Your task to perform on an android device: Open the phone app and click the voicemail tab. Image 0: 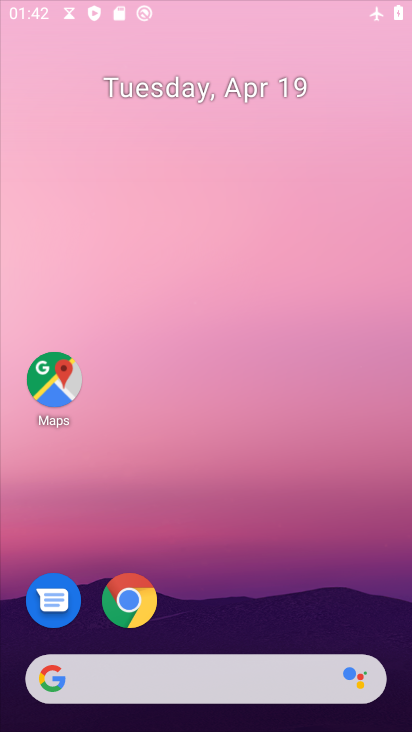
Step 0: drag from (209, 554) to (149, 41)
Your task to perform on an android device: Open the phone app and click the voicemail tab. Image 1: 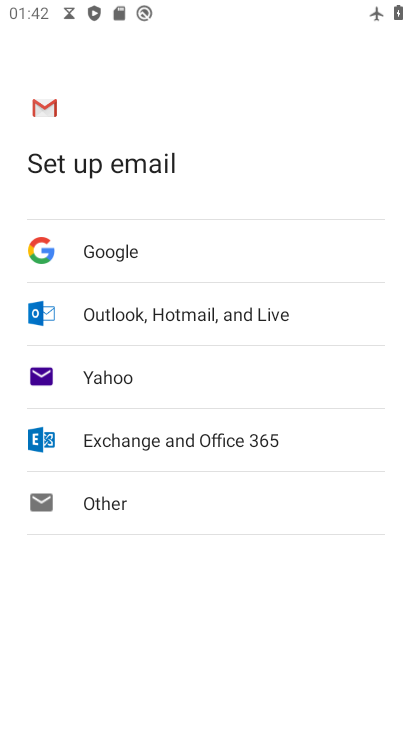
Step 1: press home button
Your task to perform on an android device: Open the phone app and click the voicemail tab. Image 2: 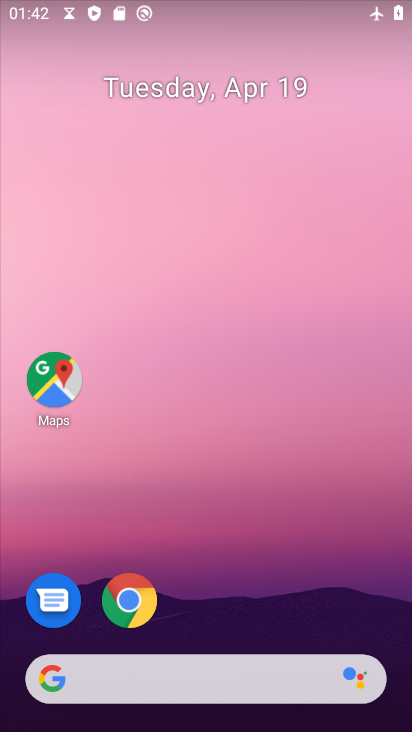
Step 2: drag from (189, 366) to (140, 68)
Your task to perform on an android device: Open the phone app and click the voicemail tab. Image 3: 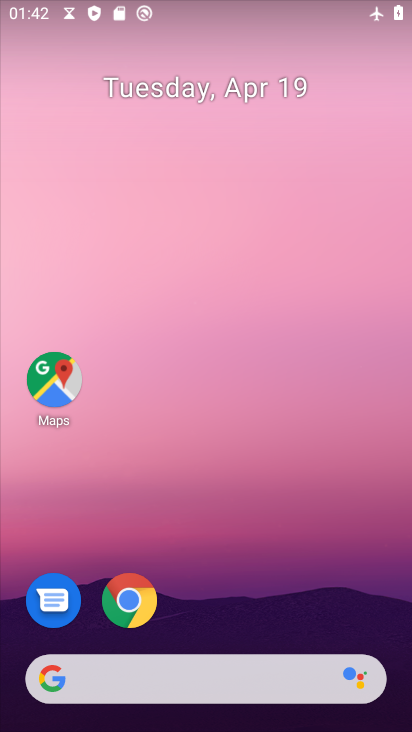
Step 3: drag from (200, 627) to (184, 20)
Your task to perform on an android device: Open the phone app and click the voicemail tab. Image 4: 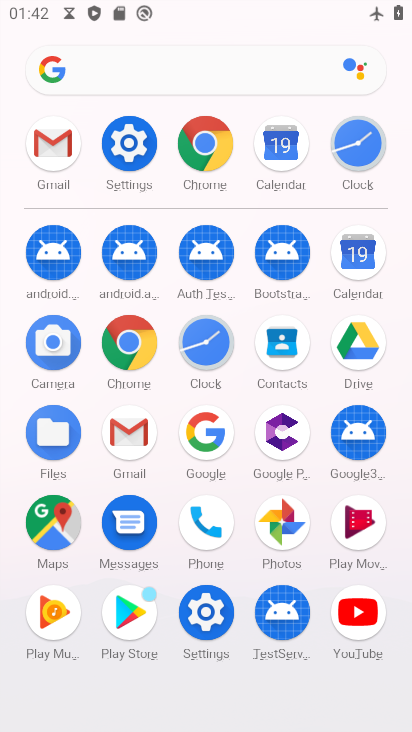
Step 4: click (195, 546)
Your task to perform on an android device: Open the phone app and click the voicemail tab. Image 5: 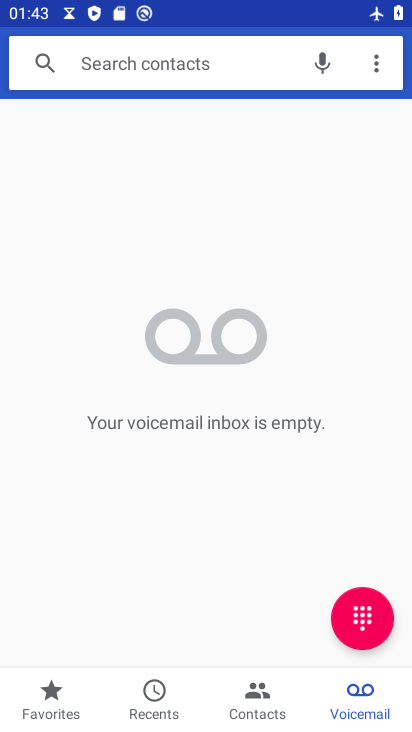
Step 5: task complete